Your task to perform on an android device: Open Youtube and go to "Your channel" Image 0: 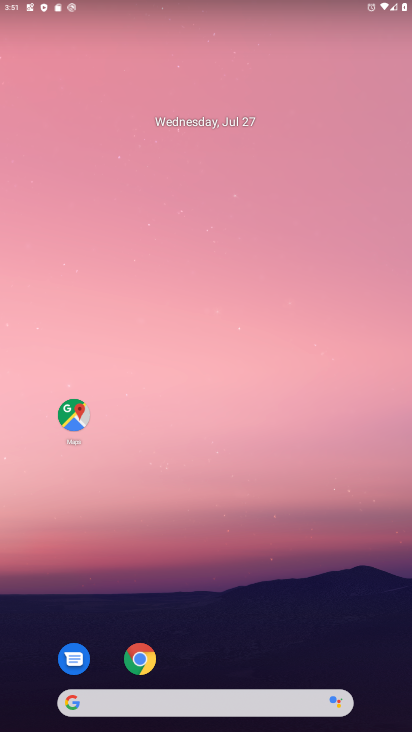
Step 0: drag from (221, 629) to (161, 35)
Your task to perform on an android device: Open Youtube and go to "Your channel" Image 1: 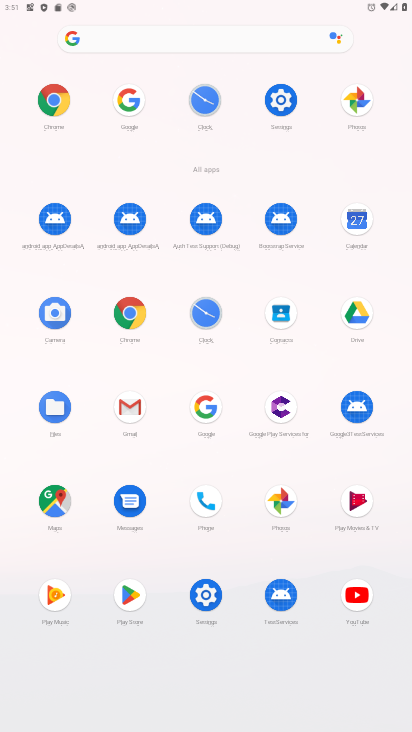
Step 1: click (352, 604)
Your task to perform on an android device: Open Youtube and go to "Your channel" Image 2: 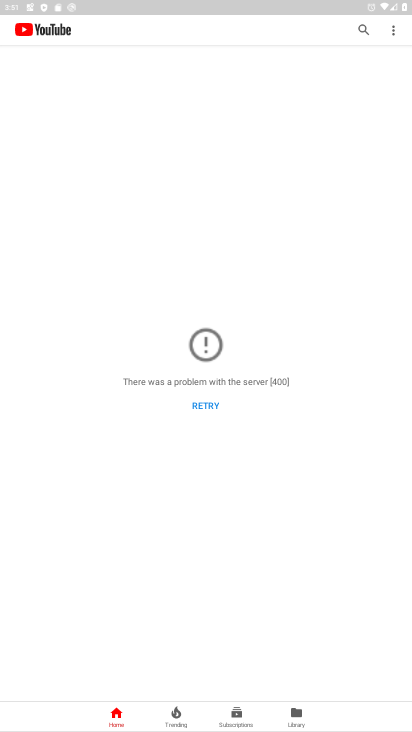
Step 2: click (205, 396)
Your task to perform on an android device: Open Youtube and go to "Your channel" Image 3: 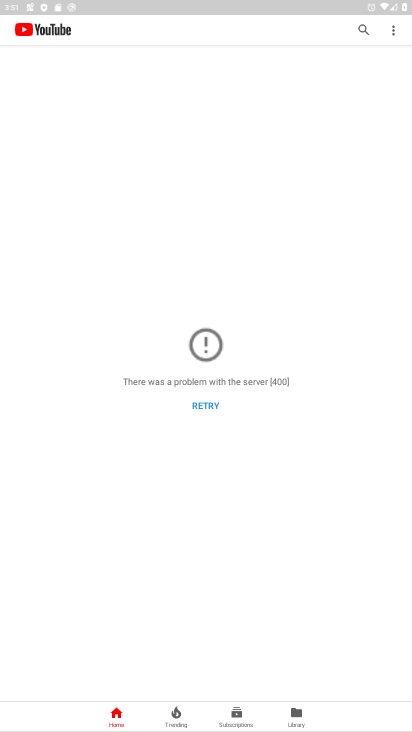
Step 3: click (205, 403)
Your task to perform on an android device: Open Youtube and go to "Your channel" Image 4: 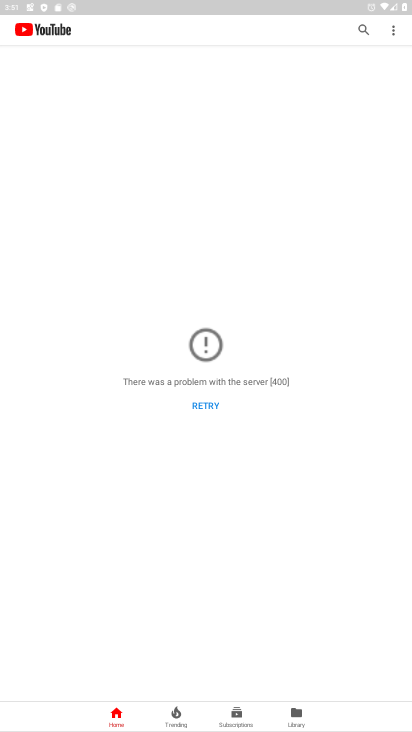
Step 4: task complete